Your task to perform on an android device: toggle notification dots Image 0: 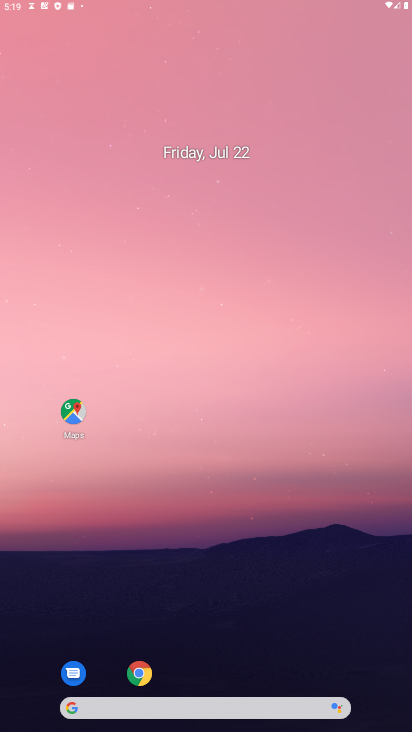
Step 0: press home button
Your task to perform on an android device: toggle notification dots Image 1: 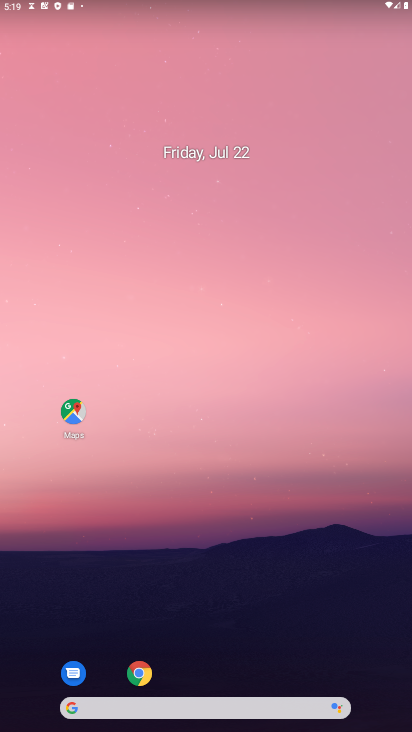
Step 1: drag from (253, 608) to (282, 88)
Your task to perform on an android device: toggle notification dots Image 2: 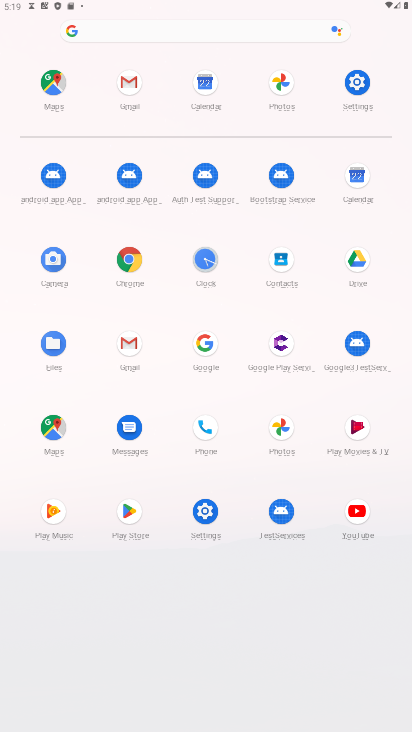
Step 2: click (356, 90)
Your task to perform on an android device: toggle notification dots Image 3: 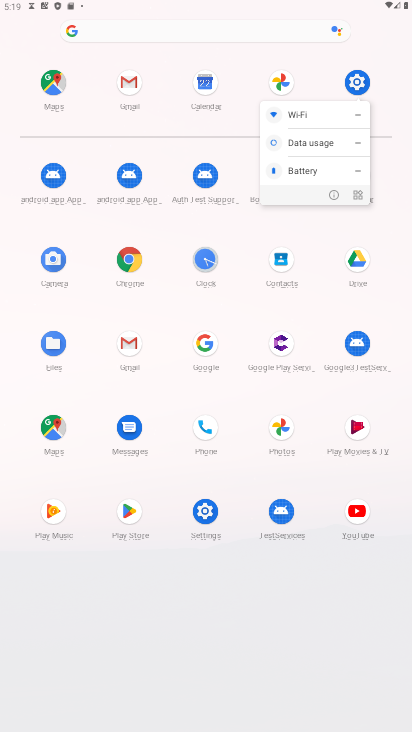
Step 3: click (356, 90)
Your task to perform on an android device: toggle notification dots Image 4: 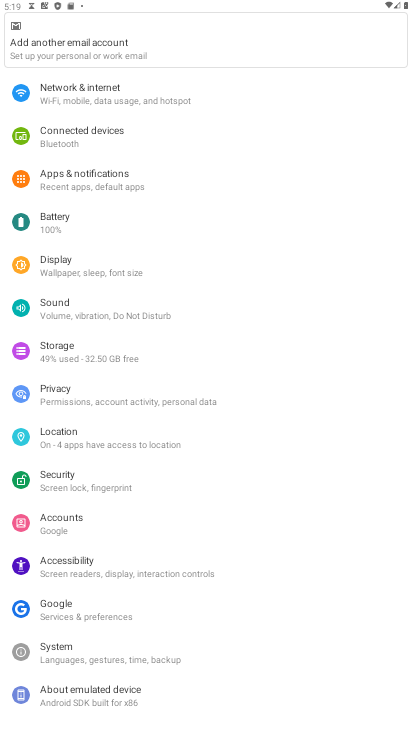
Step 4: click (59, 163)
Your task to perform on an android device: toggle notification dots Image 5: 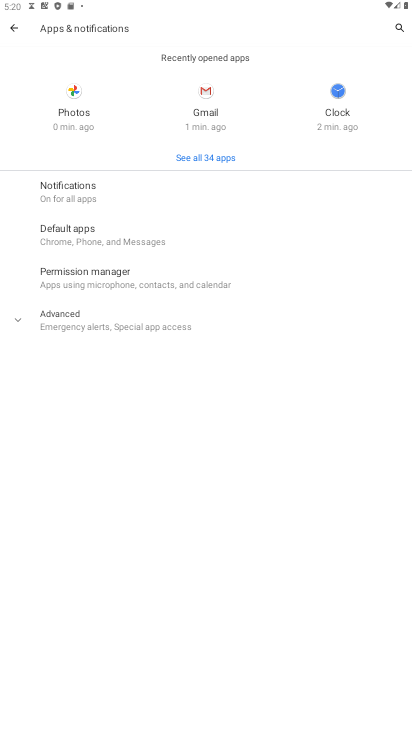
Step 5: click (60, 203)
Your task to perform on an android device: toggle notification dots Image 6: 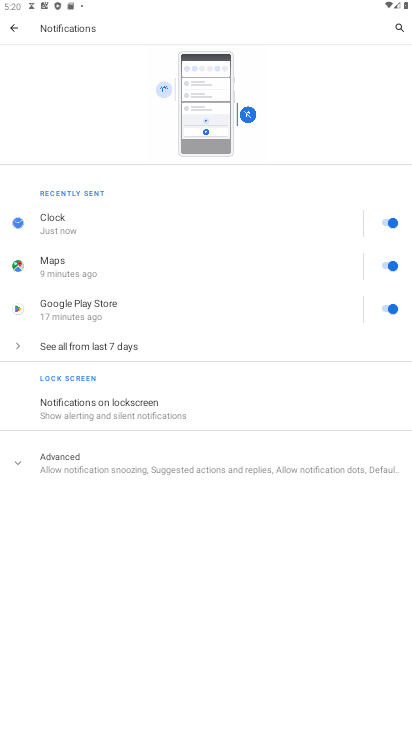
Step 6: click (89, 464)
Your task to perform on an android device: toggle notification dots Image 7: 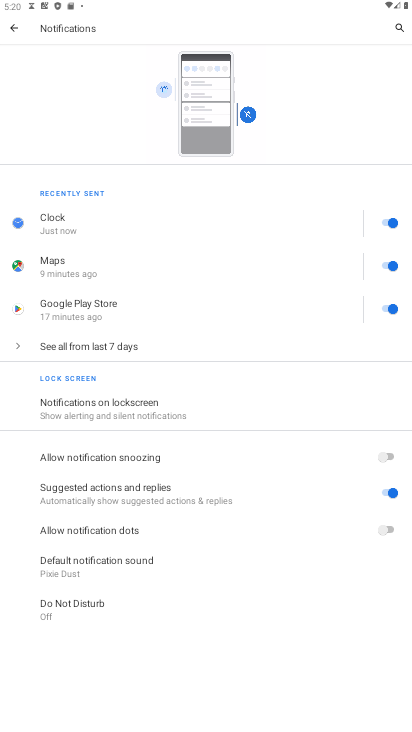
Step 7: click (392, 530)
Your task to perform on an android device: toggle notification dots Image 8: 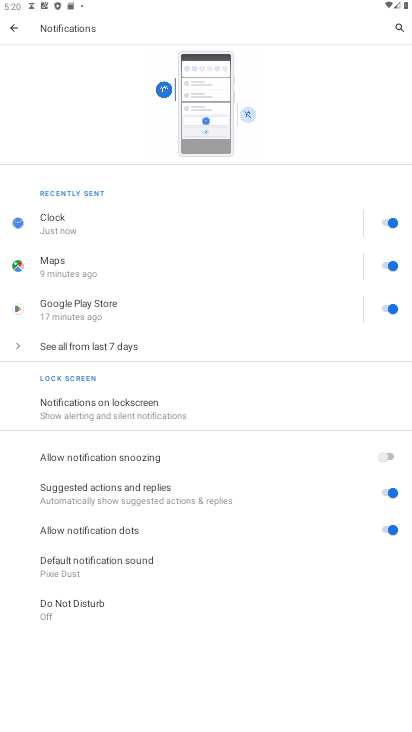
Step 8: task complete